Your task to perform on an android device: find which apps use the phone's location Image 0: 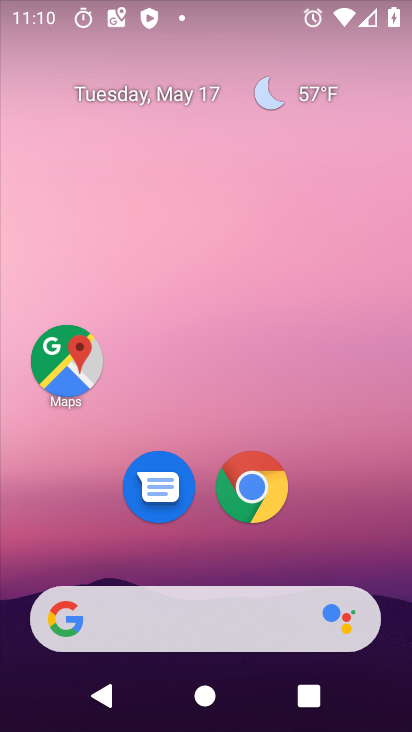
Step 0: drag from (217, 726) to (219, 72)
Your task to perform on an android device: find which apps use the phone's location Image 1: 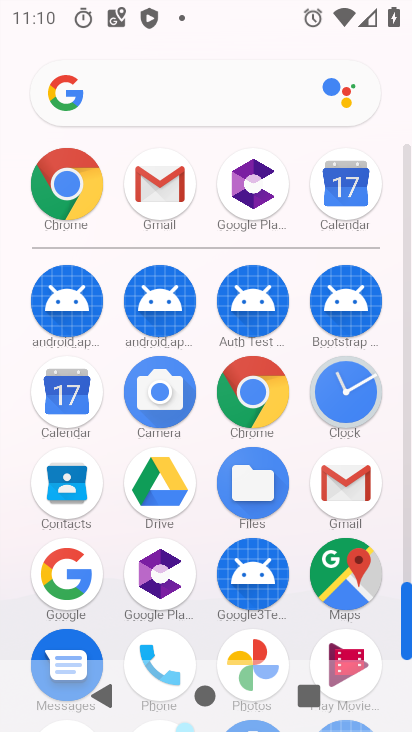
Step 1: drag from (114, 627) to (109, 221)
Your task to perform on an android device: find which apps use the phone's location Image 2: 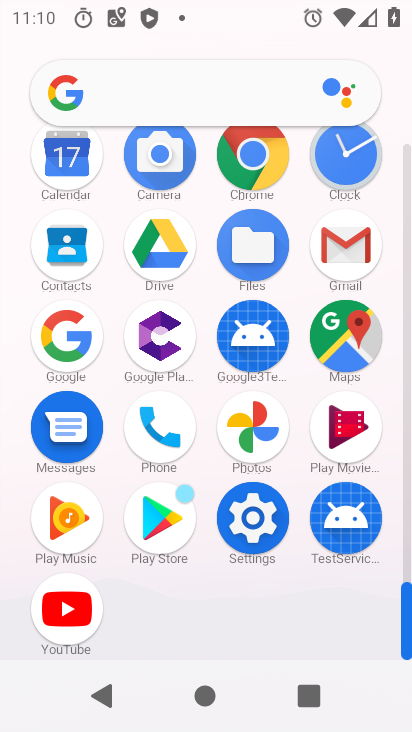
Step 2: click (266, 528)
Your task to perform on an android device: find which apps use the phone's location Image 3: 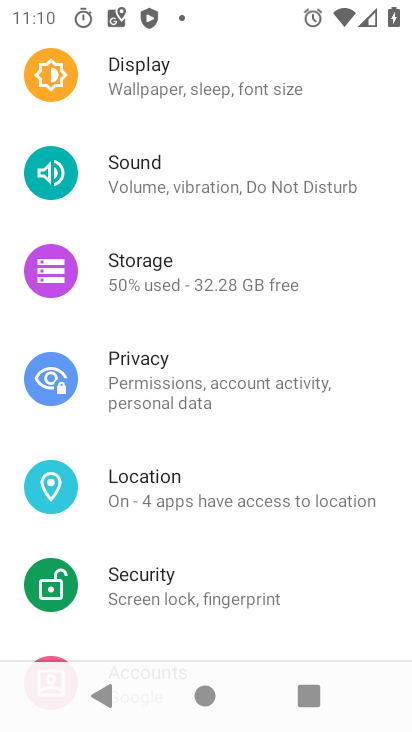
Step 3: click (139, 491)
Your task to perform on an android device: find which apps use the phone's location Image 4: 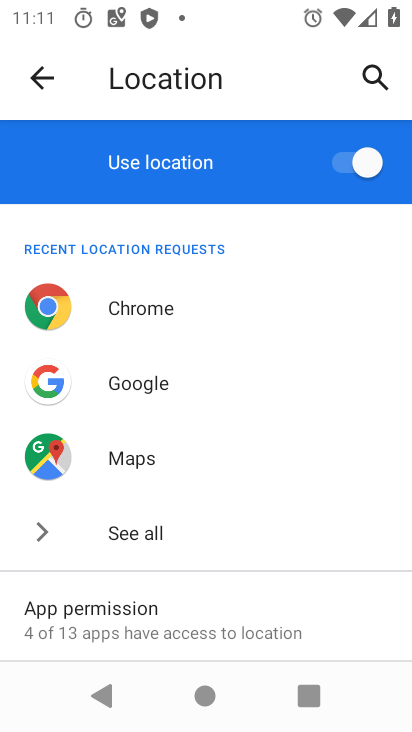
Step 4: drag from (178, 621) to (178, 204)
Your task to perform on an android device: find which apps use the phone's location Image 5: 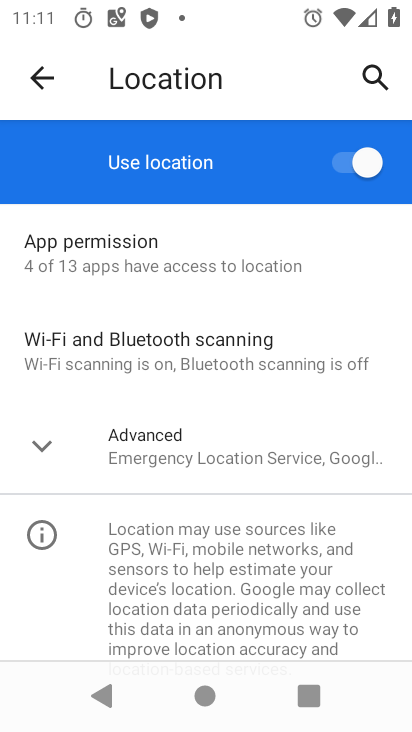
Step 5: drag from (173, 617) to (189, 399)
Your task to perform on an android device: find which apps use the phone's location Image 6: 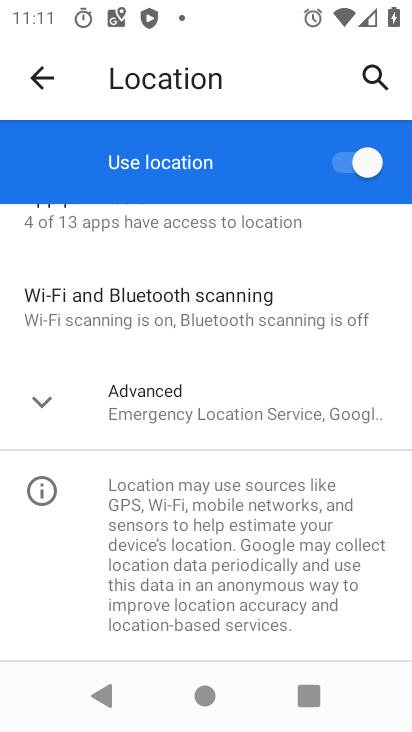
Step 6: drag from (195, 264) to (192, 540)
Your task to perform on an android device: find which apps use the phone's location Image 7: 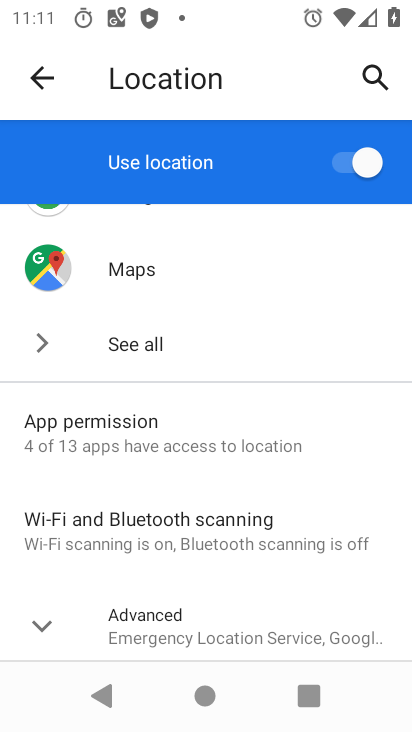
Step 7: click (111, 404)
Your task to perform on an android device: find which apps use the phone's location Image 8: 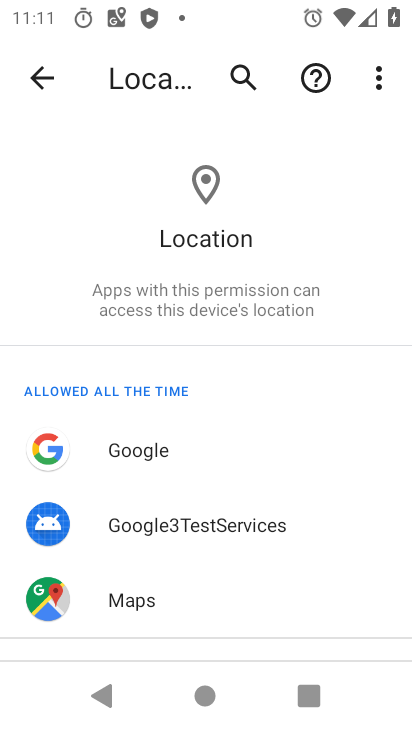
Step 8: task complete